Your task to perform on an android device: Open sound settings Image 0: 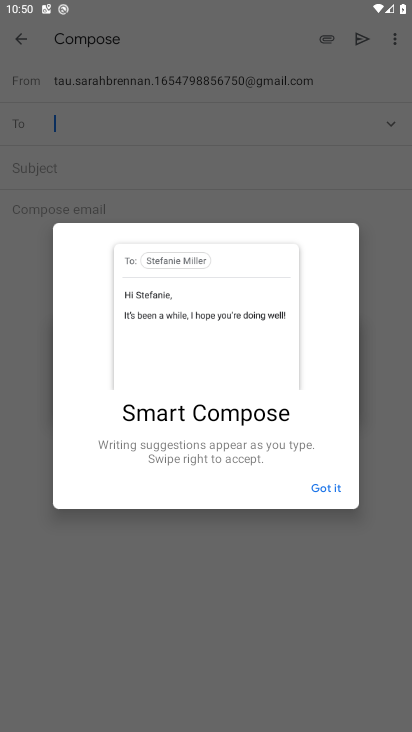
Step 0: press home button
Your task to perform on an android device: Open sound settings Image 1: 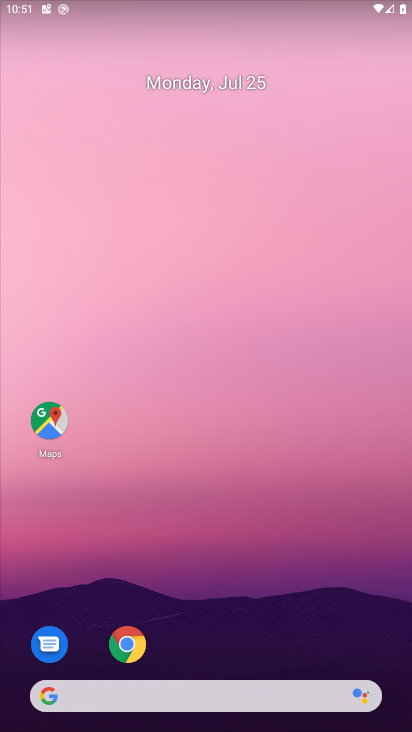
Step 1: drag from (194, 639) to (250, 79)
Your task to perform on an android device: Open sound settings Image 2: 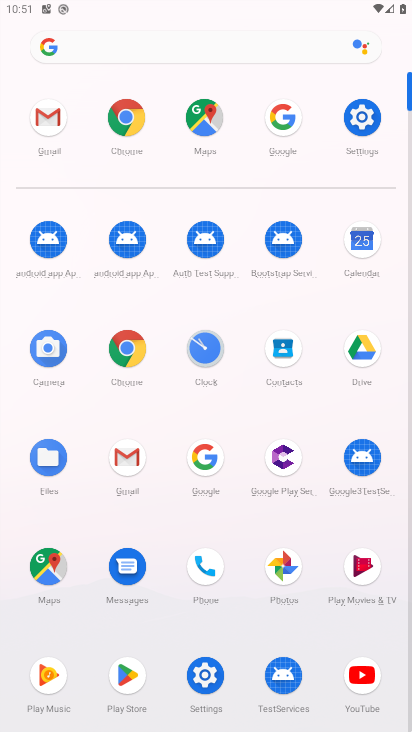
Step 2: click (210, 672)
Your task to perform on an android device: Open sound settings Image 3: 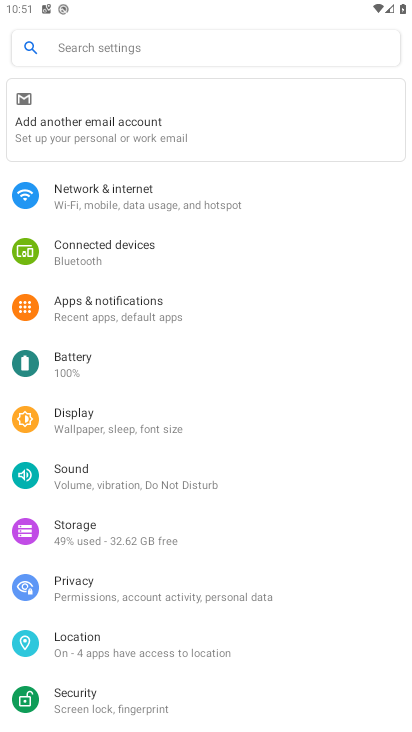
Step 3: click (89, 477)
Your task to perform on an android device: Open sound settings Image 4: 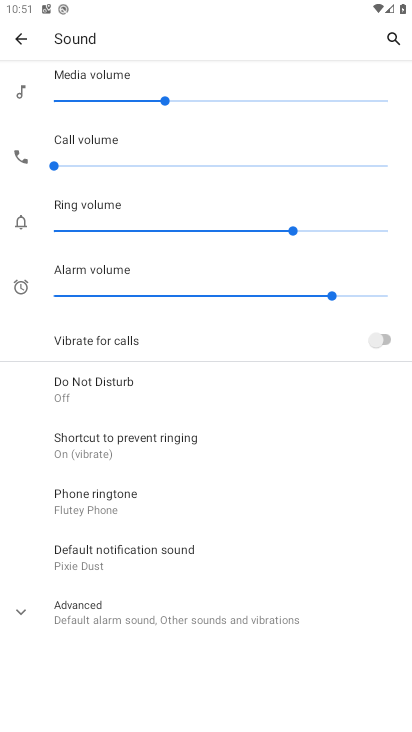
Step 4: task complete